Your task to perform on an android device: Open Chrome and go to the settings page Image 0: 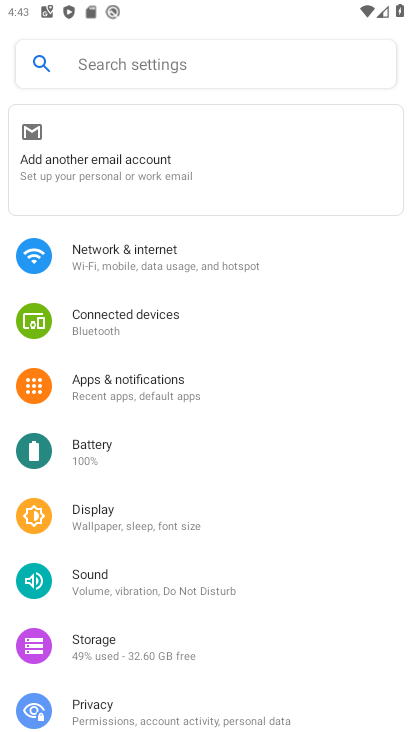
Step 0: press back button
Your task to perform on an android device: Open Chrome and go to the settings page Image 1: 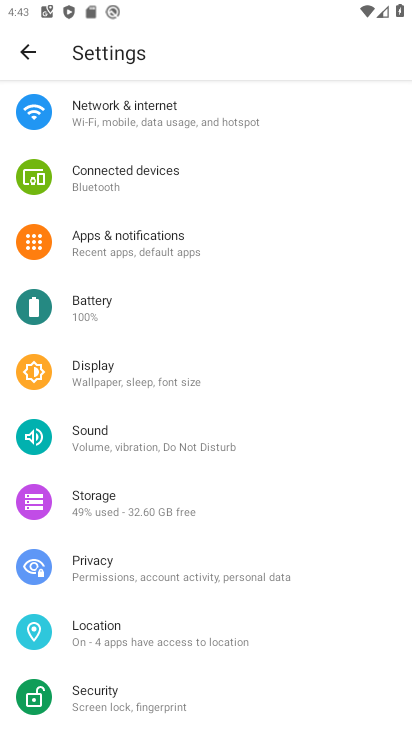
Step 1: press back button
Your task to perform on an android device: Open Chrome and go to the settings page Image 2: 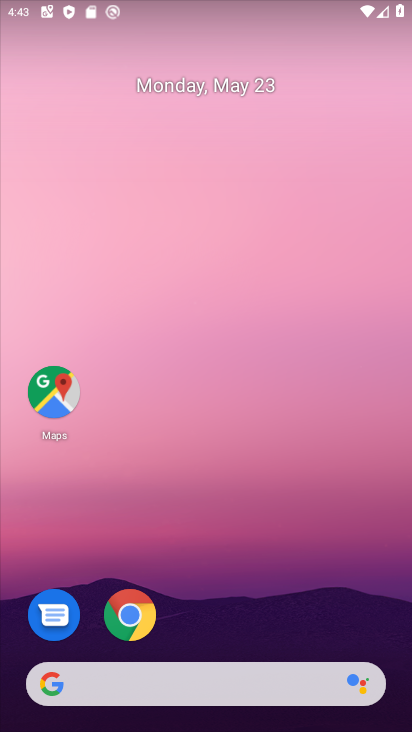
Step 2: click (126, 614)
Your task to perform on an android device: Open Chrome and go to the settings page Image 3: 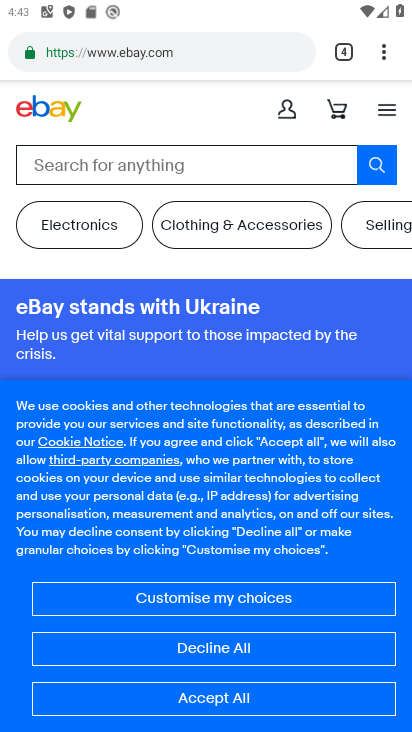
Step 3: task complete